Your task to perform on an android device: empty trash in google photos Image 0: 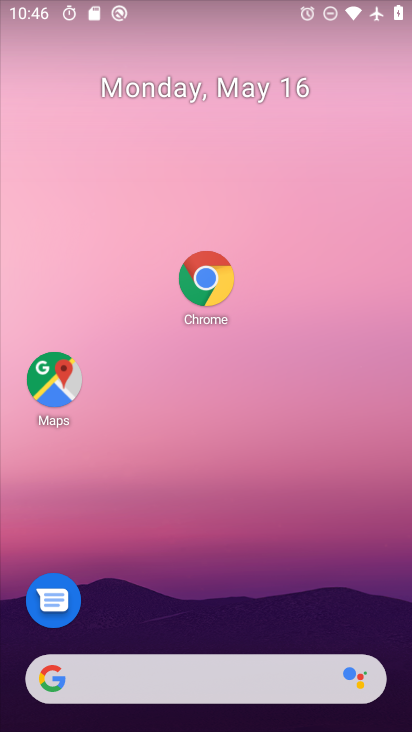
Step 0: drag from (154, 687) to (259, 76)
Your task to perform on an android device: empty trash in google photos Image 1: 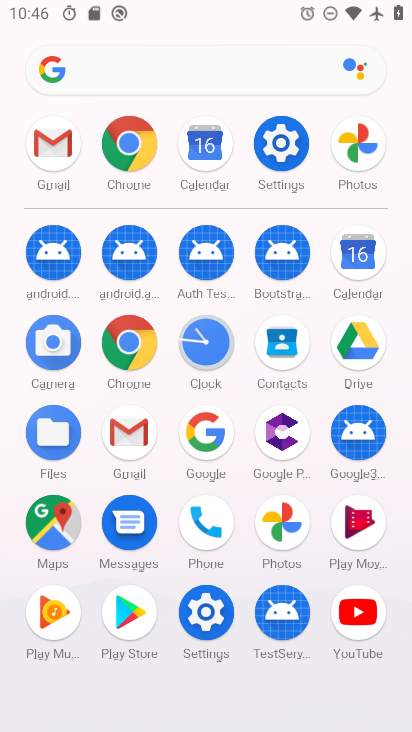
Step 1: click (285, 529)
Your task to perform on an android device: empty trash in google photos Image 2: 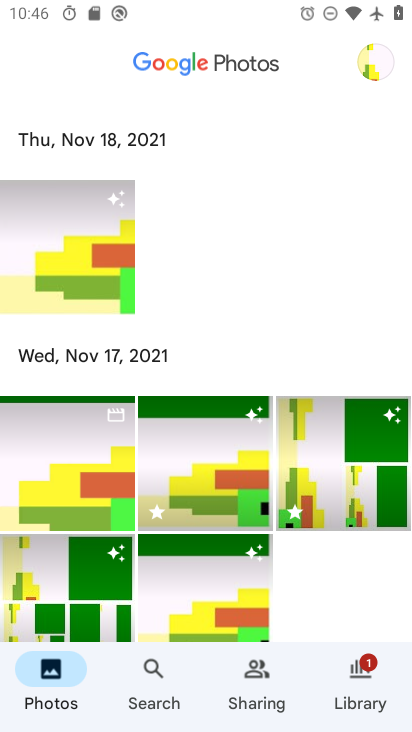
Step 2: click (352, 687)
Your task to perform on an android device: empty trash in google photos Image 3: 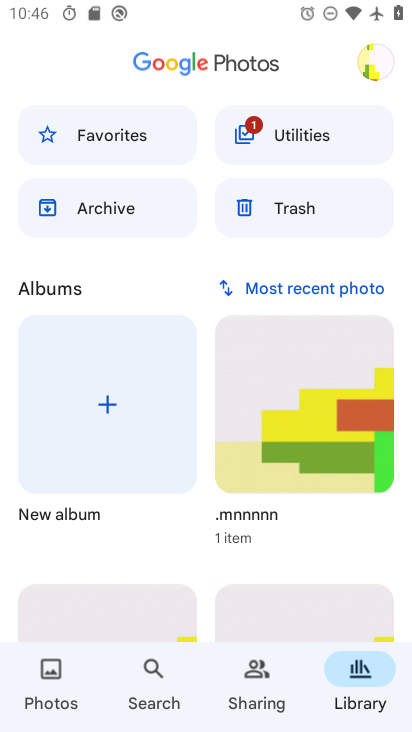
Step 3: click (281, 206)
Your task to perform on an android device: empty trash in google photos Image 4: 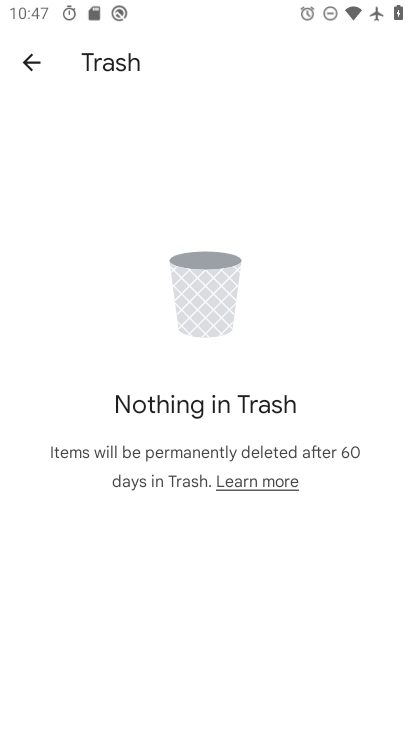
Step 4: task complete